Your task to perform on an android device: open sync settings in chrome Image 0: 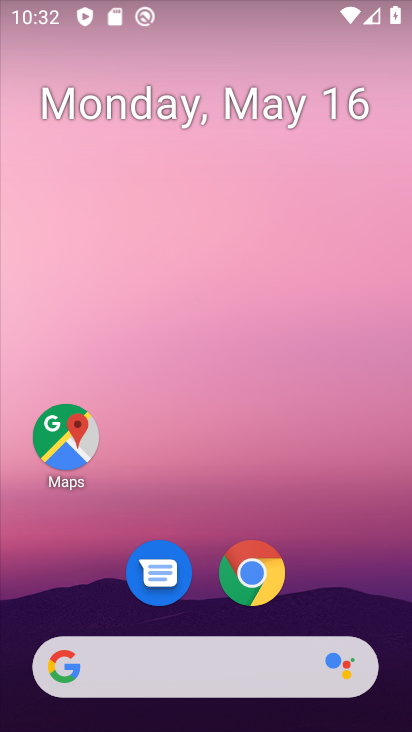
Step 0: drag from (347, 646) to (385, 146)
Your task to perform on an android device: open sync settings in chrome Image 1: 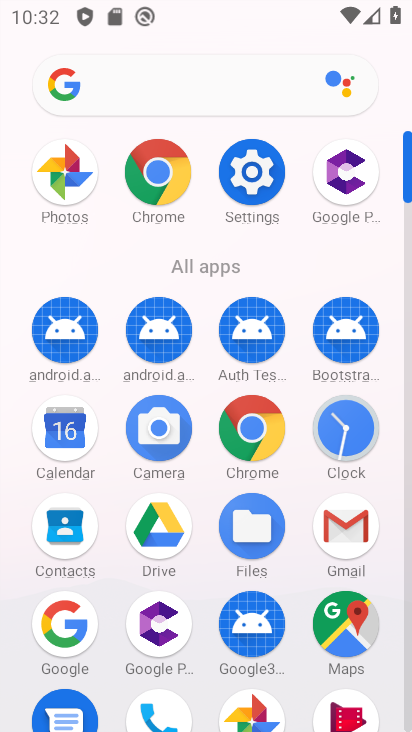
Step 1: click (259, 436)
Your task to perform on an android device: open sync settings in chrome Image 2: 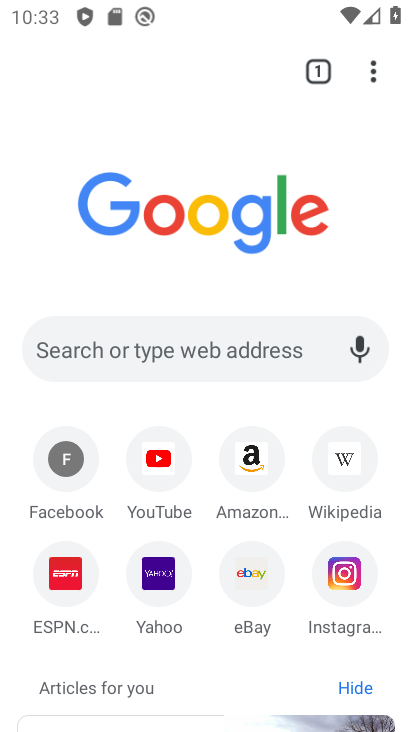
Step 2: drag from (201, 588) to (215, 141)
Your task to perform on an android device: open sync settings in chrome Image 3: 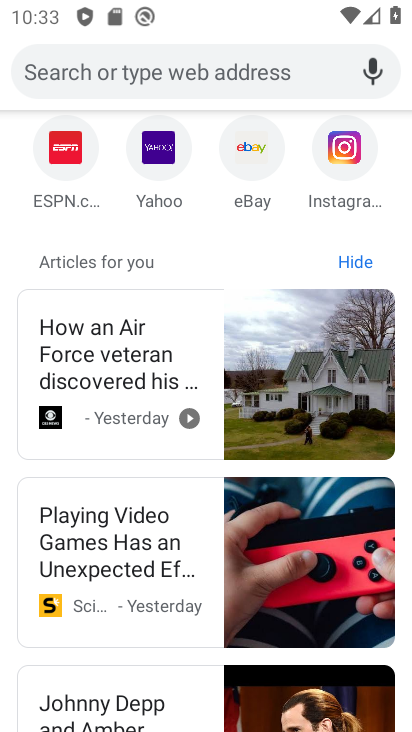
Step 3: drag from (224, 236) to (119, 575)
Your task to perform on an android device: open sync settings in chrome Image 4: 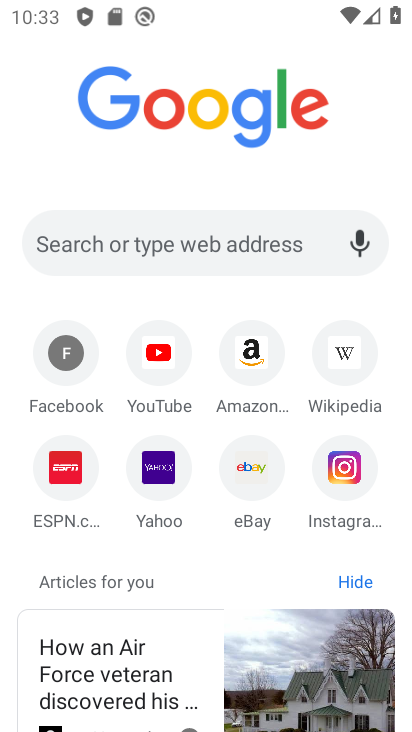
Step 4: drag from (241, 156) to (241, 493)
Your task to perform on an android device: open sync settings in chrome Image 5: 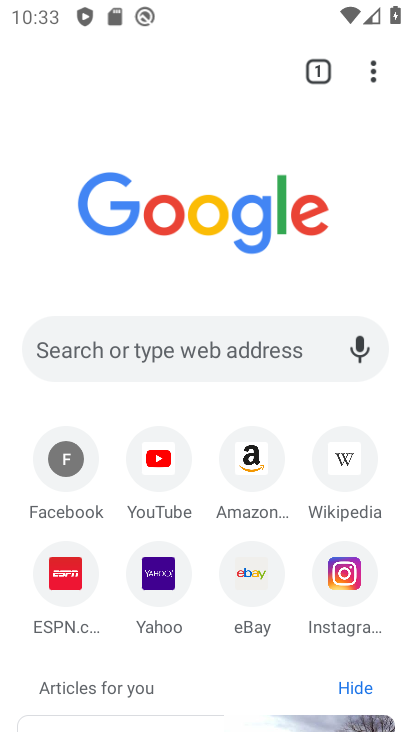
Step 5: click (372, 83)
Your task to perform on an android device: open sync settings in chrome Image 6: 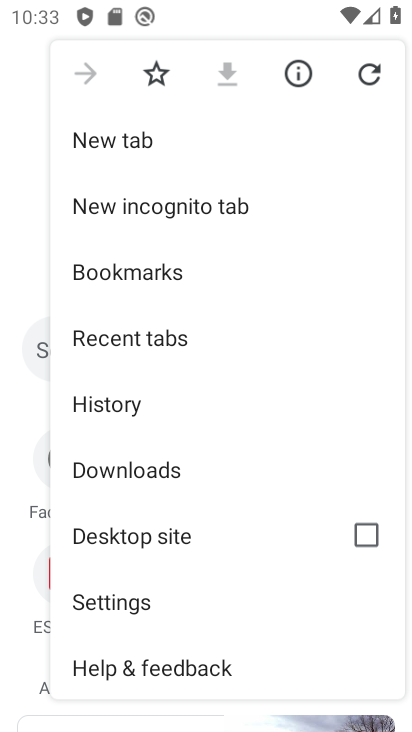
Step 6: click (177, 608)
Your task to perform on an android device: open sync settings in chrome Image 7: 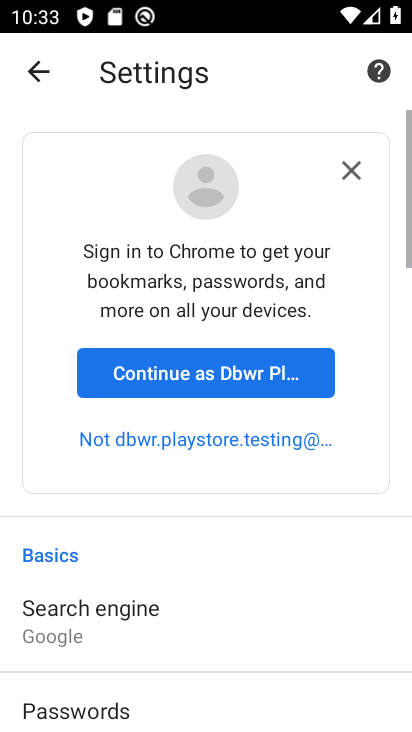
Step 7: drag from (178, 608) to (210, 149)
Your task to perform on an android device: open sync settings in chrome Image 8: 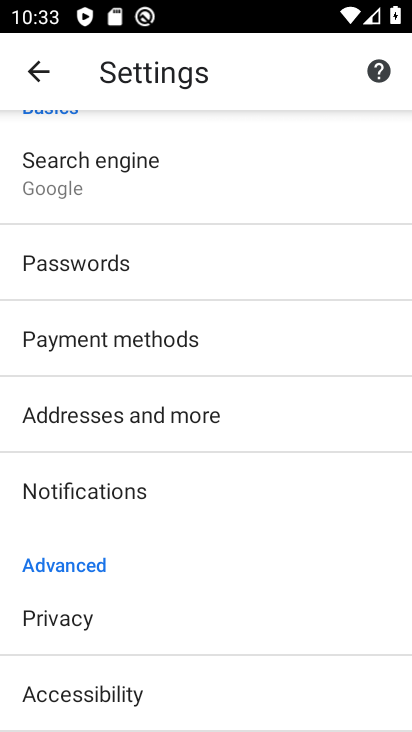
Step 8: drag from (85, 657) to (138, 360)
Your task to perform on an android device: open sync settings in chrome Image 9: 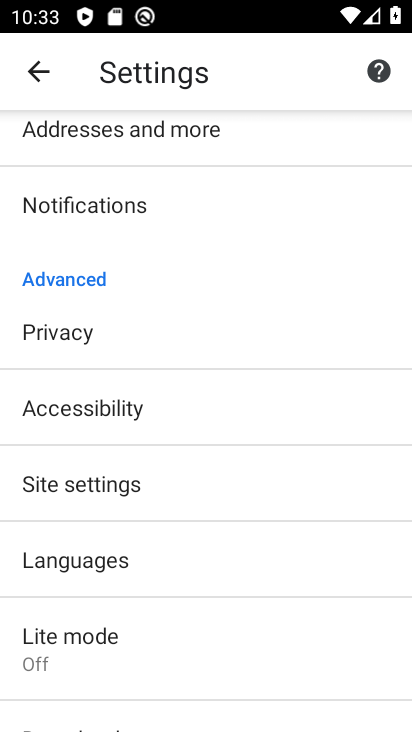
Step 9: click (152, 496)
Your task to perform on an android device: open sync settings in chrome Image 10: 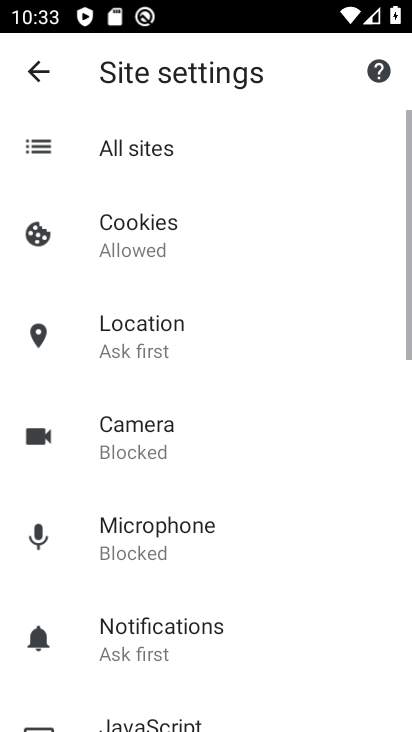
Step 10: drag from (177, 672) to (190, 244)
Your task to perform on an android device: open sync settings in chrome Image 11: 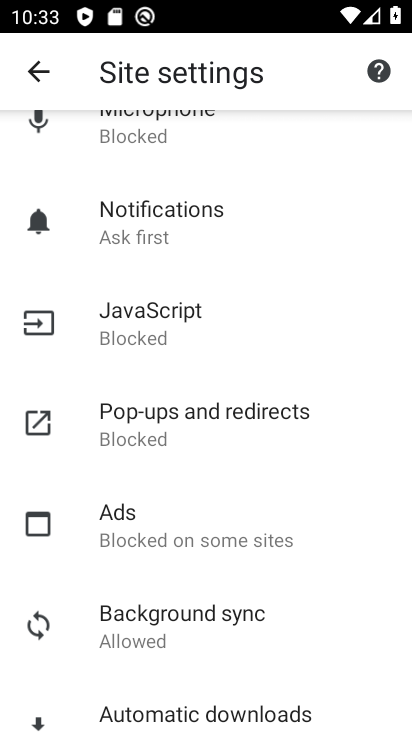
Step 11: click (142, 604)
Your task to perform on an android device: open sync settings in chrome Image 12: 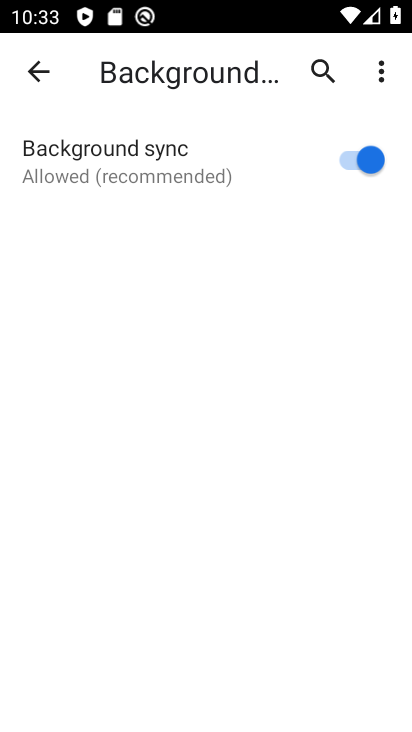
Step 12: task complete